Your task to perform on an android device: toggle sleep mode Image 0: 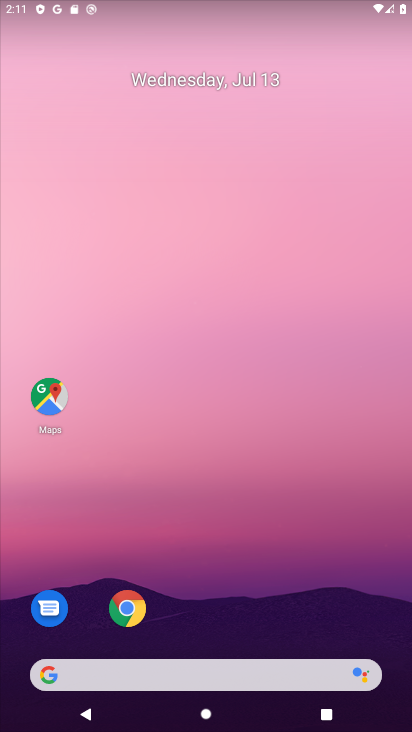
Step 0: drag from (211, 651) to (108, 1)
Your task to perform on an android device: toggle sleep mode Image 1: 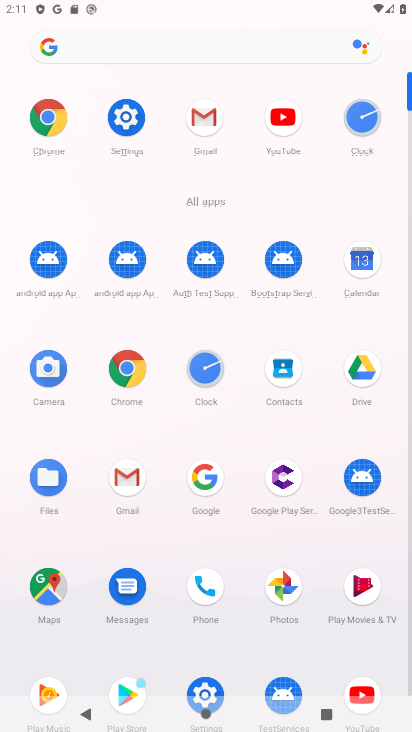
Step 1: click (135, 114)
Your task to perform on an android device: toggle sleep mode Image 2: 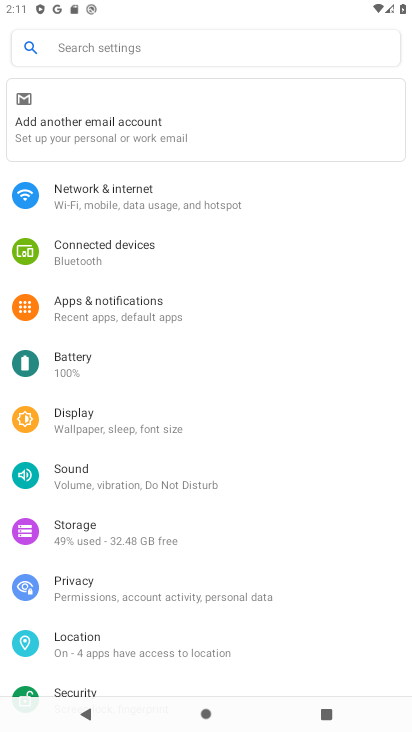
Step 2: task complete